Your task to perform on an android device: check the backup settings in the google photos Image 0: 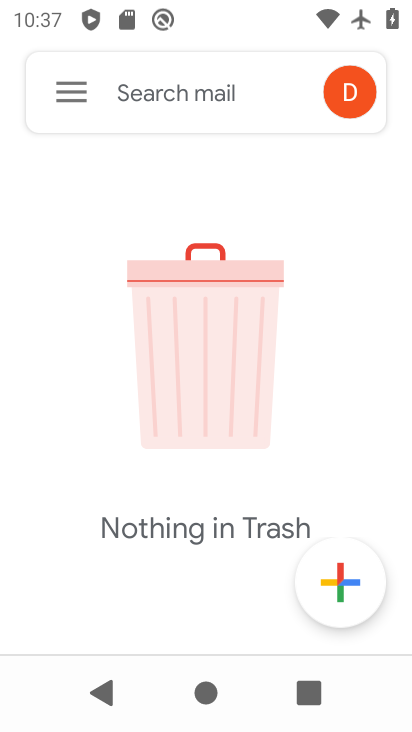
Step 0: press home button
Your task to perform on an android device: check the backup settings in the google photos Image 1: 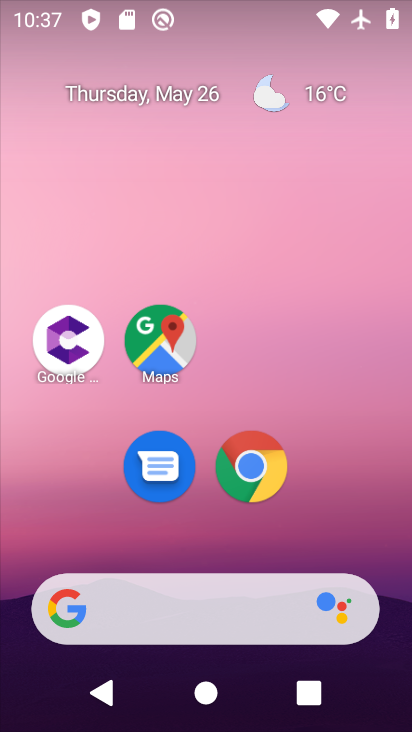
Step 1: drag from (327, 525) to (196, 54)
Your task to perform on an android device: check the backup settings in the google photos Image 2: 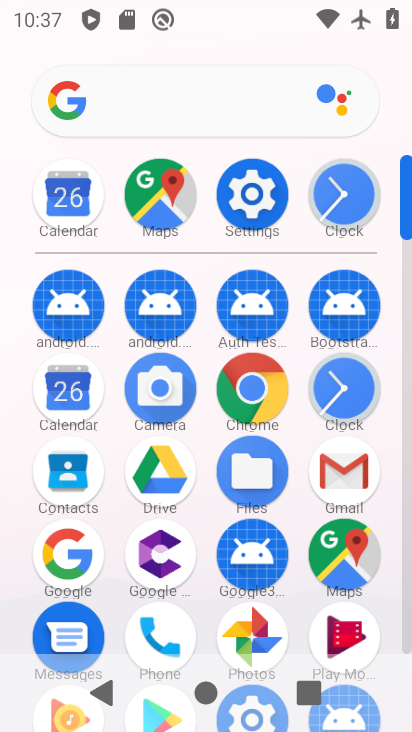
Step 2: click (251, 624)
Your task to perform on an android device: check the backup settings in the google photos Image 3: 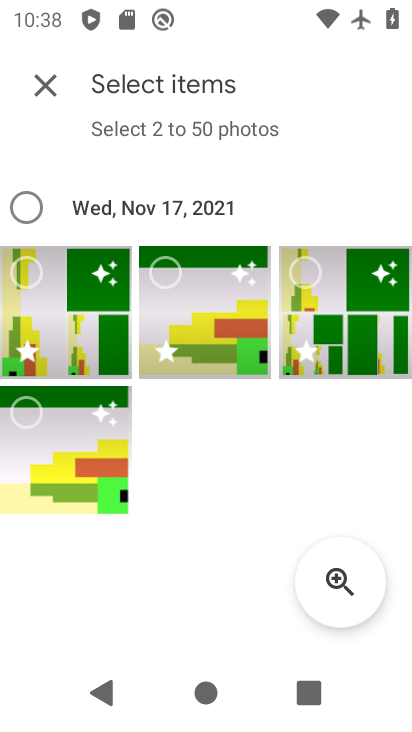
Step 3: click (47, 88)
Your task to perform on an android device: check the backup settings in the google photos Image 4: 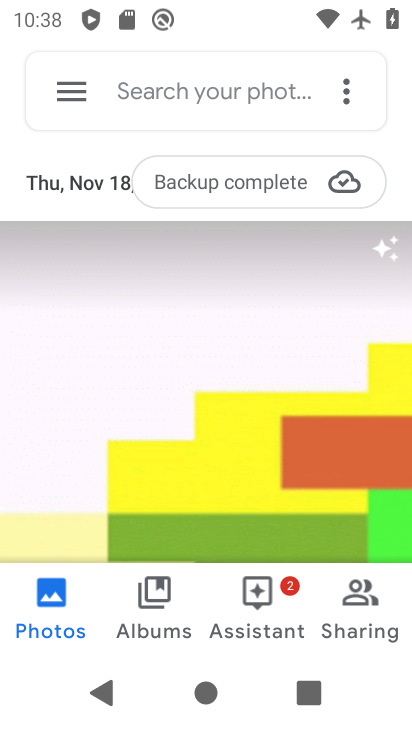
Step 4: click (72, 92)
Your task to perform on an android device: check the backup settings in the google photos Image 5: 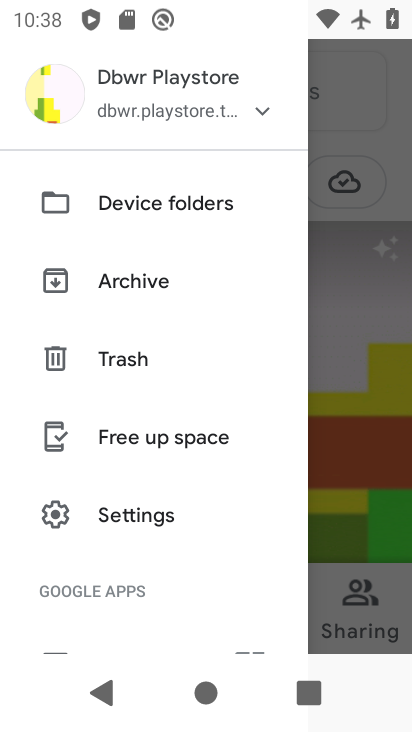
Step 5: click (131, 508)
Your task to perform on an android device: check the backup settings in the google photos Image 6: 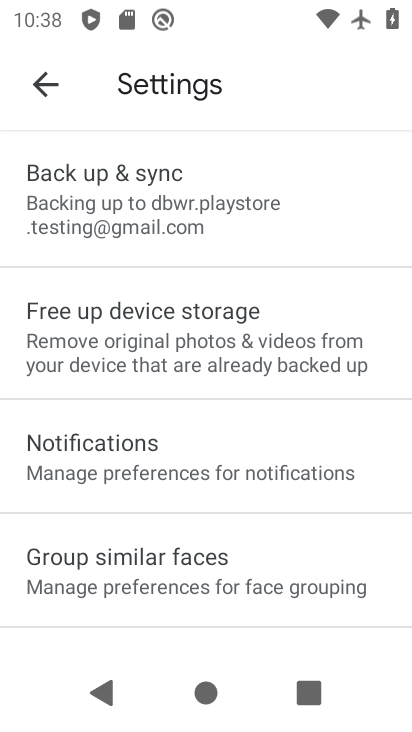
Step 6: click (87, 180)
Your task to perform on an android device: check the backup settings in the google photos Image 7: 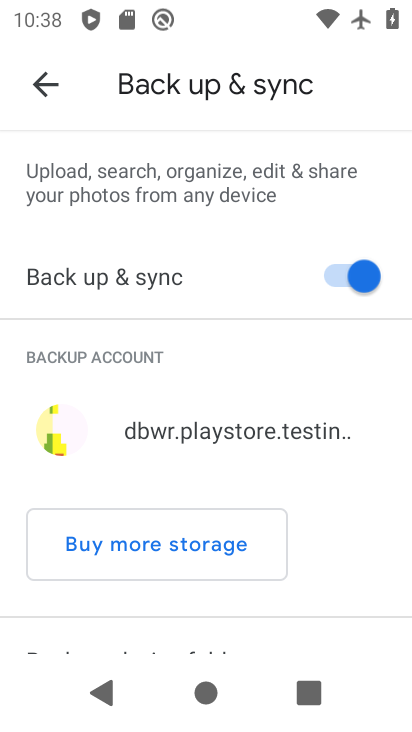
Step 7: task complete